Your task to perform on an android device: toggle priority inbox in the gmail app Image 0: 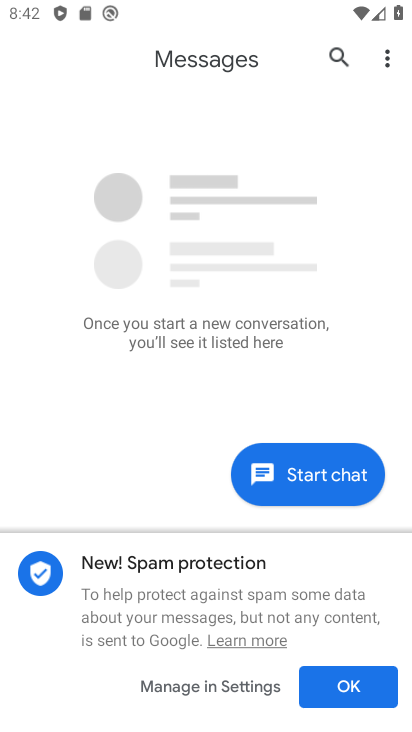
Step 0: press home button
Your task to perform on an android device: toggle priority inbox in the gmail app Image 1: 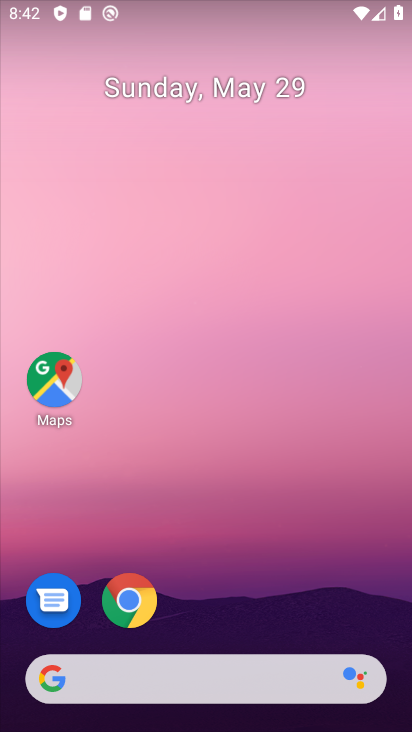
Step 1: drag from (207, 522) to (178, 113)
Your task to perform on an android device: toggle priority inbox in the gmail app Image 2: 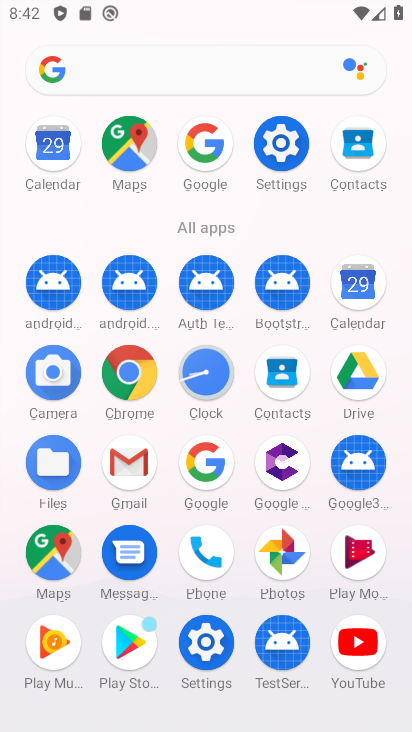
Step 2: click (138, 458)
Your task to perform on an android device: toggle priority inbox in the gmail app Image 3: 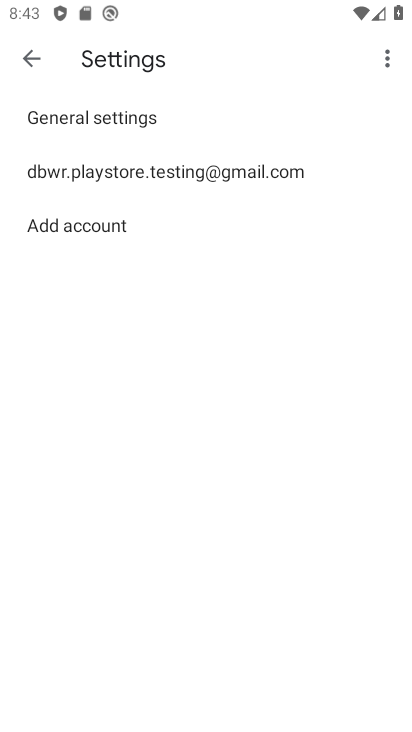
Step 3: click (97, 169)
Your task to perform on an android device: toggle priority inbox in the gmail app Image 4: 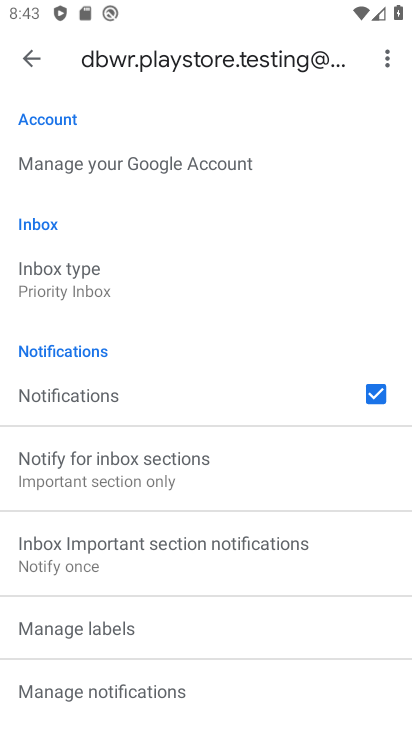
Step 4: click (91, 279)
Your task to perform on an android device: toggle priority inbox in the gmail app Image 5: 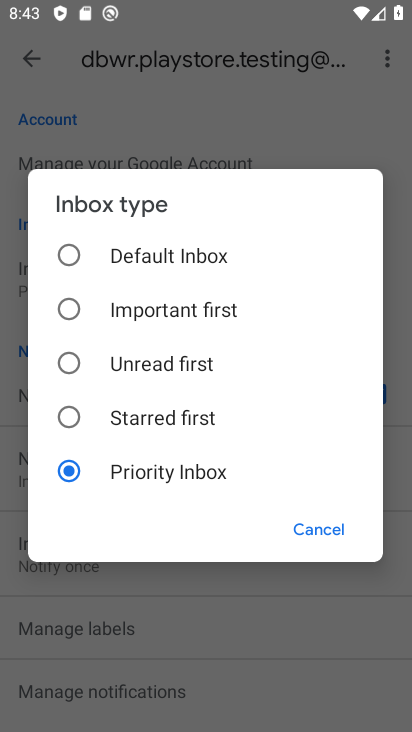
Step 5: click (68, 256)
Your task to perform on an android device: toggle priority inbox in the gmail app Image 6: 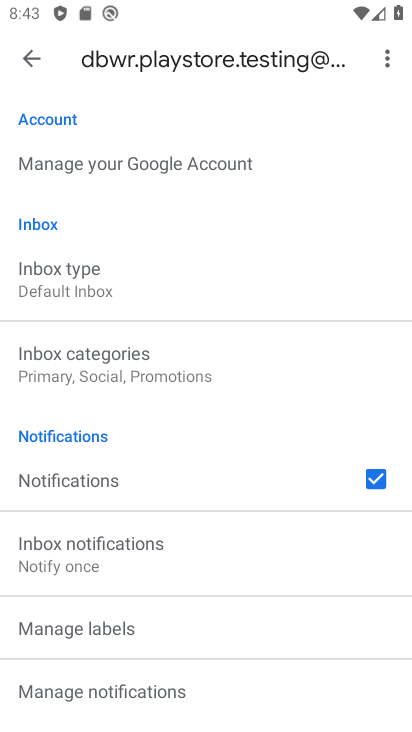
Step 6: task complete